Your task to perform on an android device: open a bookmark in the chrome app Image 0: 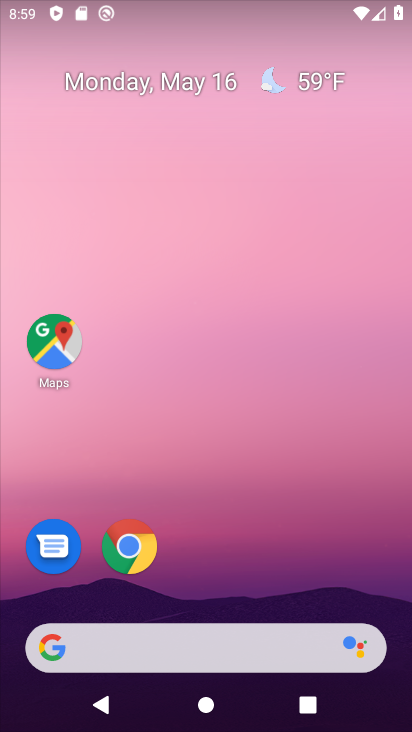
Step 0: click (130, 546)
Your task to perform on an android device: open a bookmark in the chrome app Image 1: 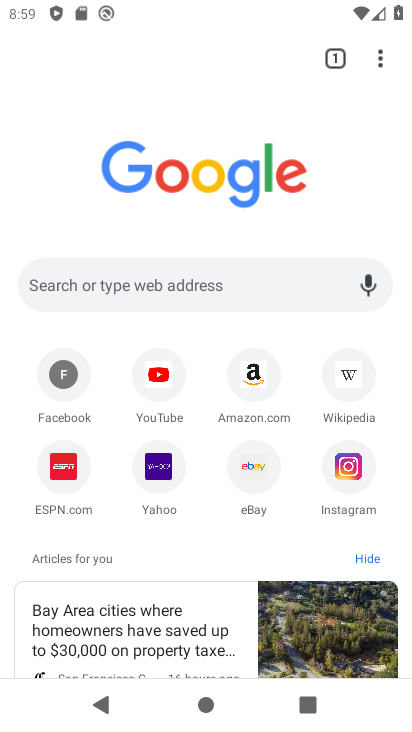
Step 1: click (386, 56)
Your task to perform on an android device: open a bookmark in the chrome app Image 2: 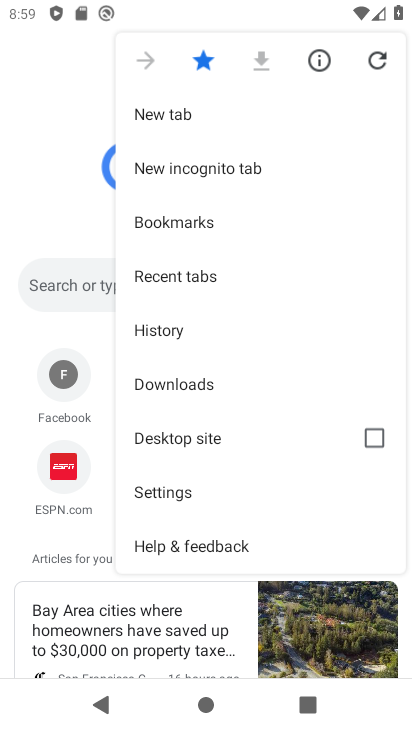
Step 2: click (192, 217)
Your task to perform on an android device: open a bookmark in the chrome app Image 3: 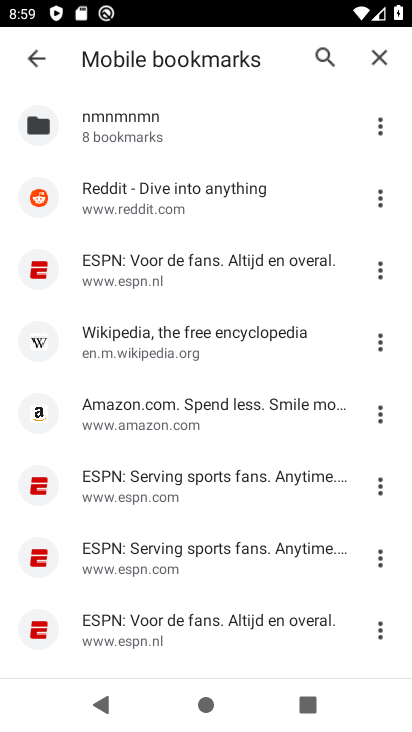
Step 3: click (164, 411)
Your task to perform on an android device: open a bookmark in the chrome app Image 4: 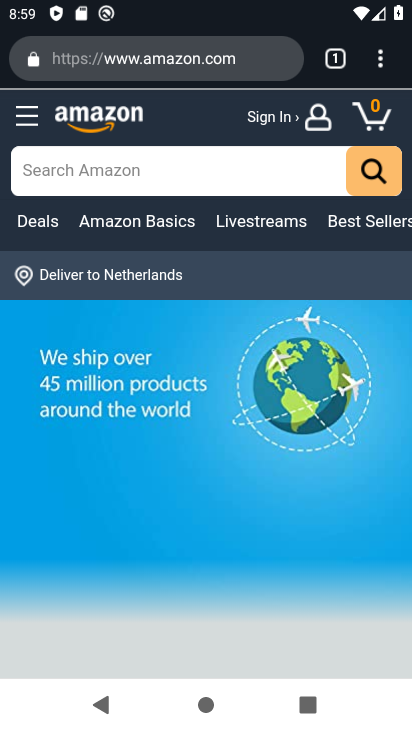
Step 4: task complete